Your task to perform on an android device: Open calendar and show me the third week of next month Image 0: 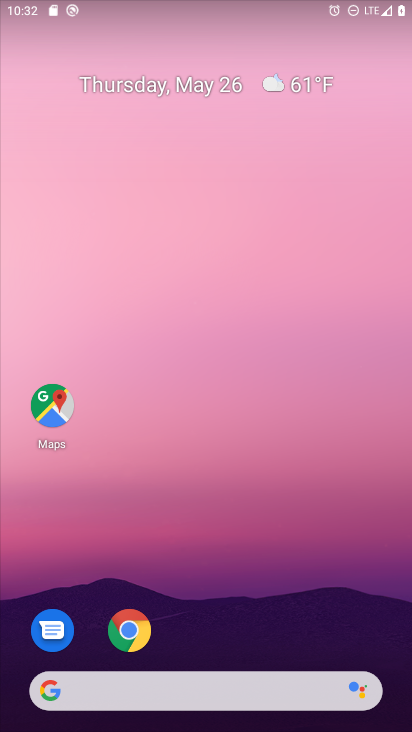
Step 0: drag from (236, 661) to (238, 11)
Your task to perform on an android device: Open calendar and show me the third week of next month Image 1: 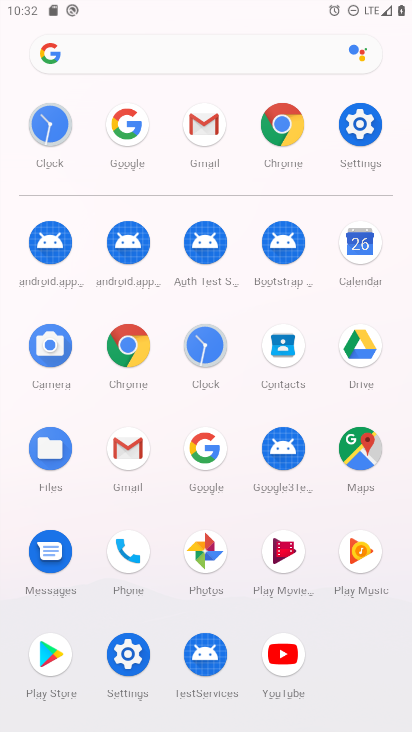
Step 1: click (376, 241)
Your task to perform on an android device: Open calendar and show me the third week of next month Image 2: 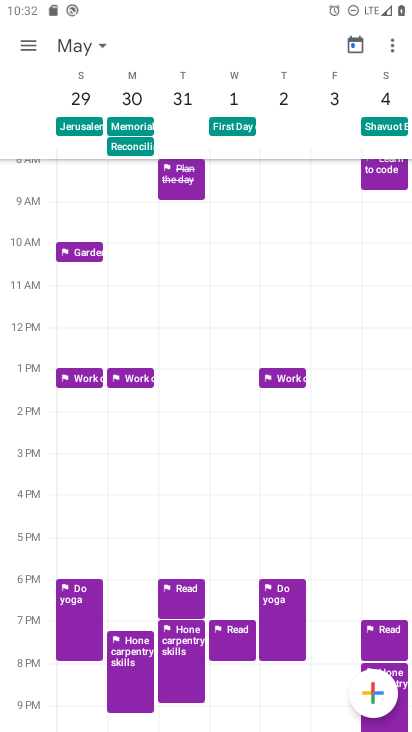
Step 2: task complete